Your task to perform on an android device: Open the web browser Image 0: 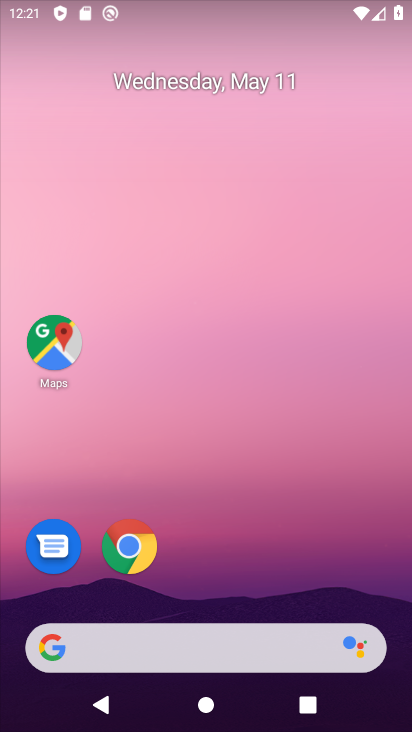
Step 0: drag from (246, 674) to (245, 311)
Your task to perform on an android device: Open the web browser Image 1: 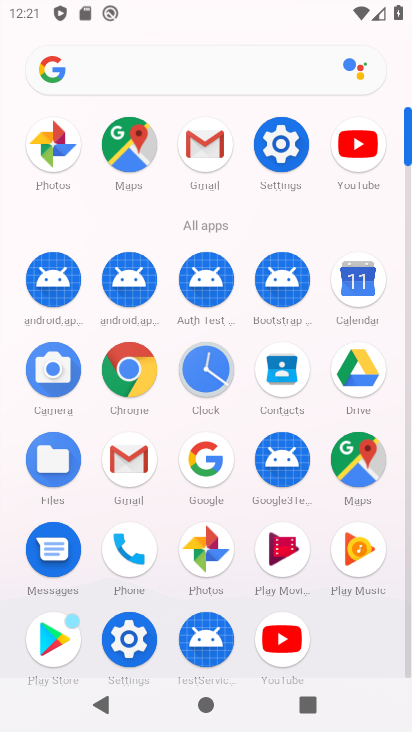
Step 1: click (124, 376)
Your task to perform on an android device: Open the web browser Image 2: 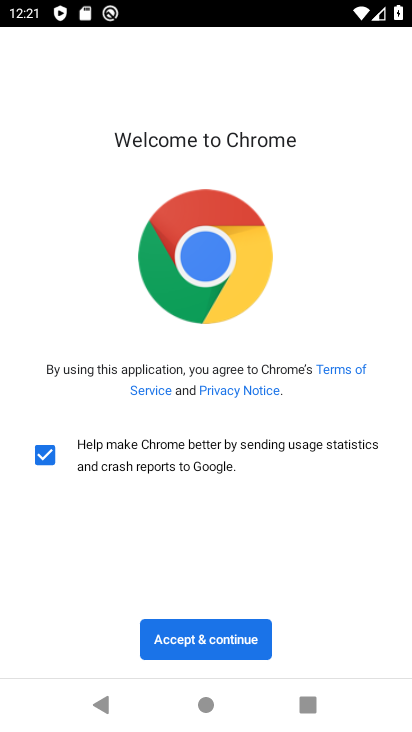
Step 2: click (197, 628)
Your task to perform on an android device: Open the web browser Image 3: 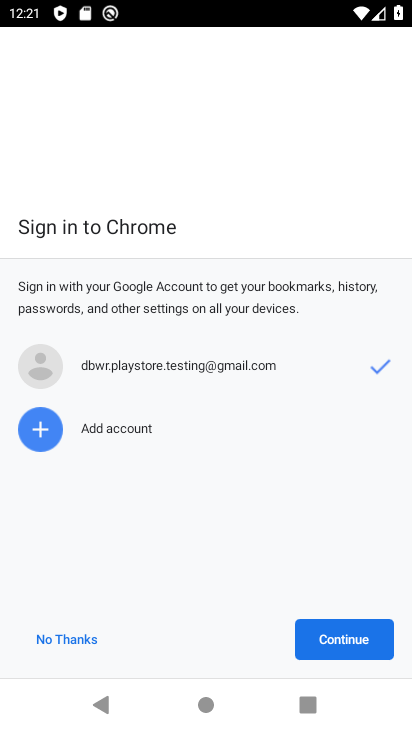
Step 3: click (342, 641)
Your task to perform on an android device: Open the web browser Image 4: 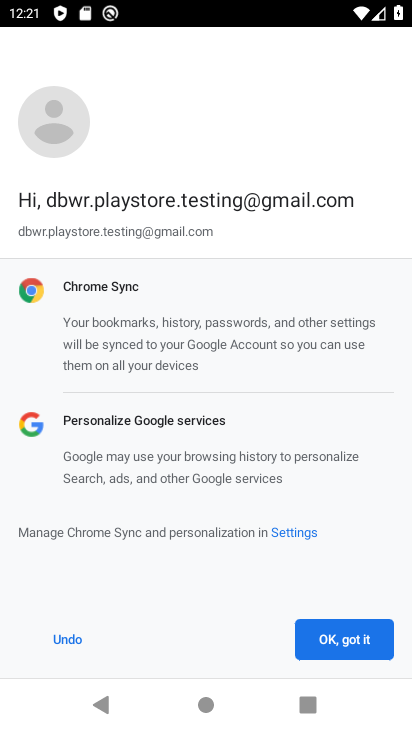
Step 4: click (336, 645)
Your task to perform on an android device: Open the web browser Image 5: 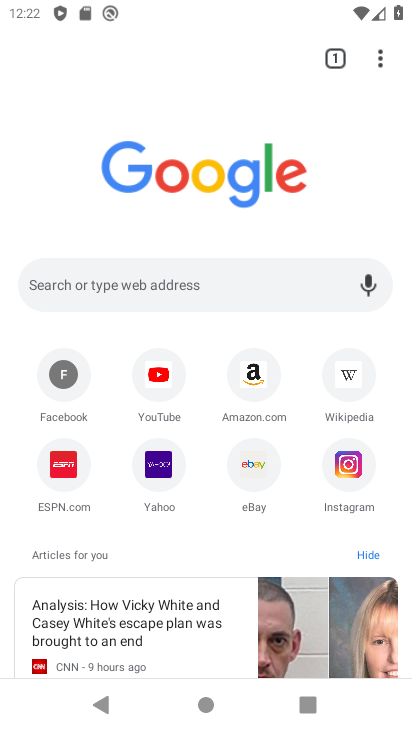
Step 5: click (219, 270)
Your task to perform on an android device: Open the web browser Image 6: 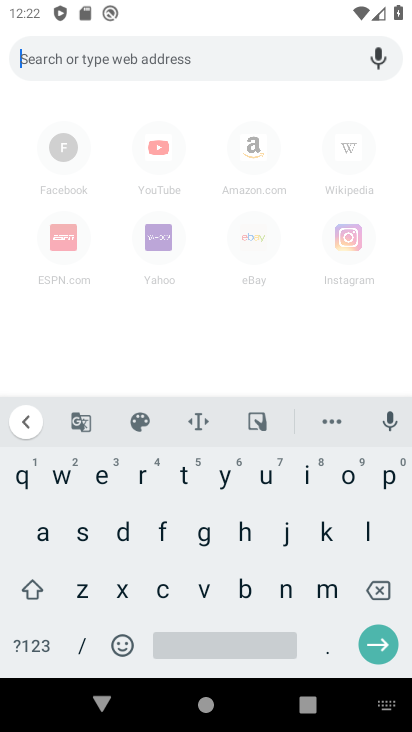
Step 6: task complete